Your task to perform on an android device: Open settings on Google Maps Image 0: 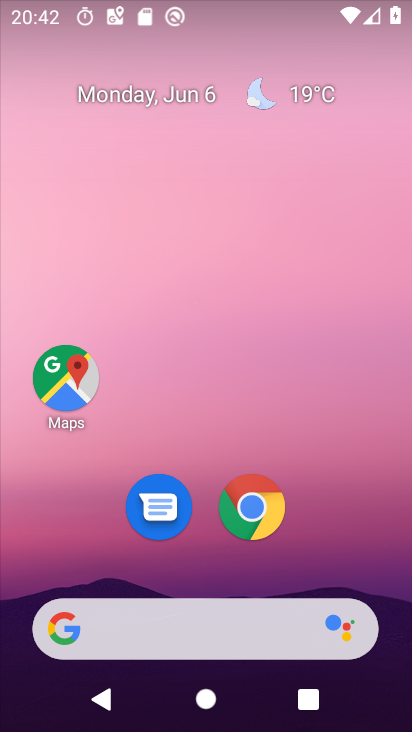
Step 0: press home button
Your task to perform on an android device: Open settings on Google Maps Image 1: 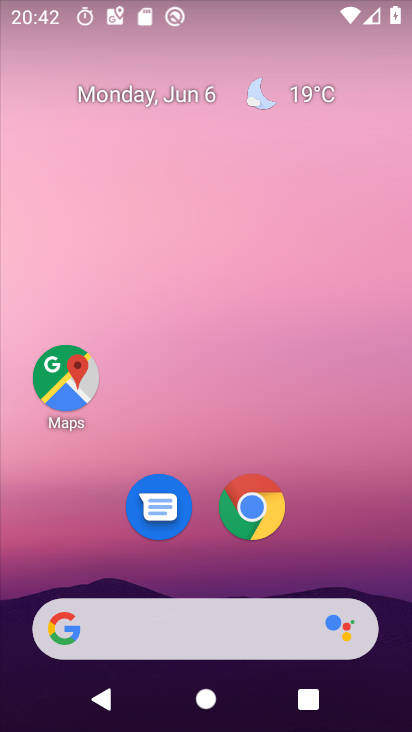
Step 1: click (80, 392)
Your task to perform on an android device: Open settings on Google Maps Image 2: 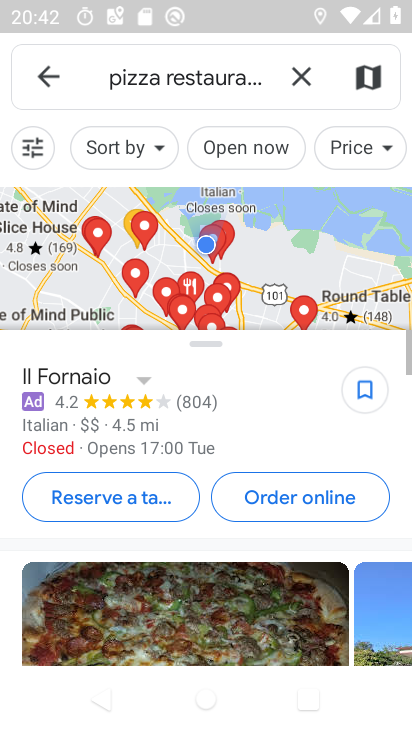
Step 2: click (31, 77)
Your task to perform on an android device: Open settings on Google Maps Image 3: 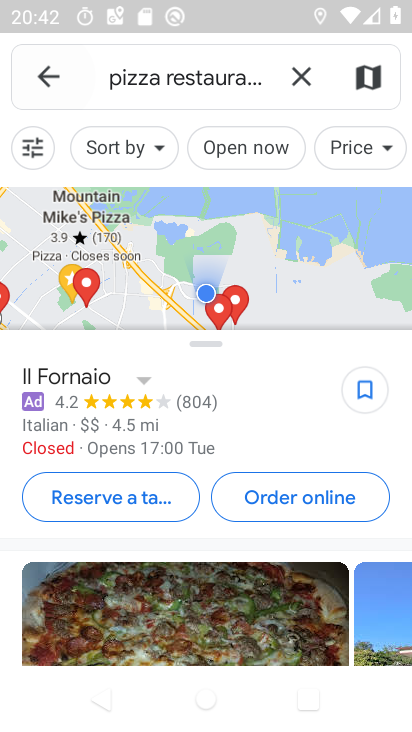
Step 3: click (31, 77)
Your task to perform on an android device: Open settings on Google Maps Image 4: 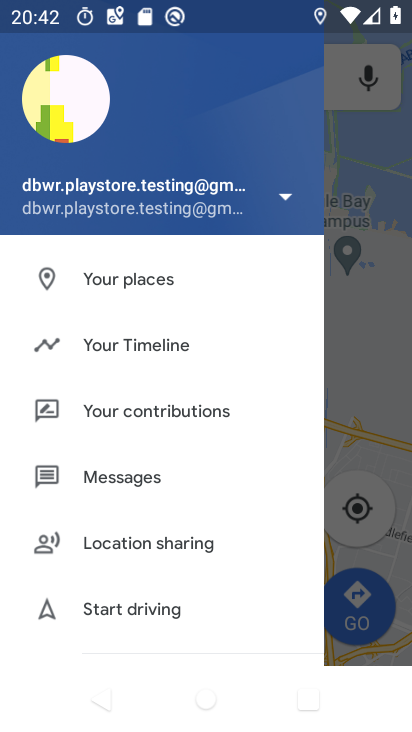
Step 4: drag from (203, 538) to (159, 76)
Your task to perform on an android device: Open settings on Google Maps Image 5: 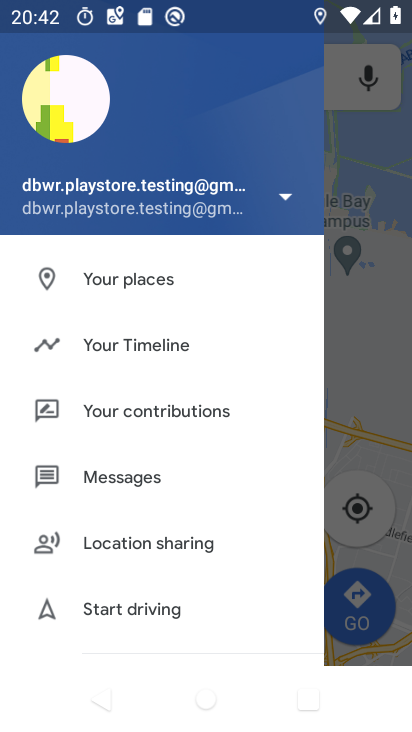
Step 5: drag from (110, 631) to (256, 73)
Your task to perform on an android device: Open settings on Google Maps Image 6: 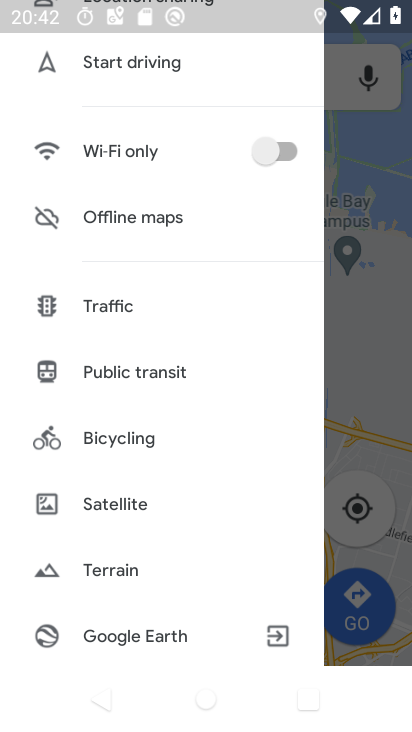
Step 6: drag from (103, 607) to (230, 112)
Your task to perform on an android device: Open settings on Google Maps Image 7: 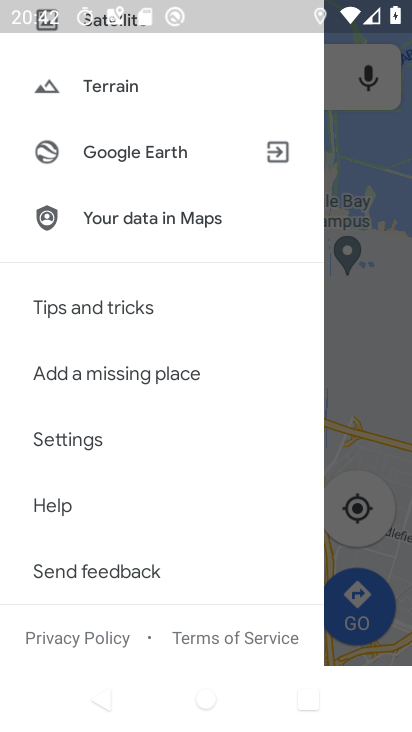
Step 7: click (75, 444)
Your task to perform on an android device: Open settings on Google Maps Image 8: 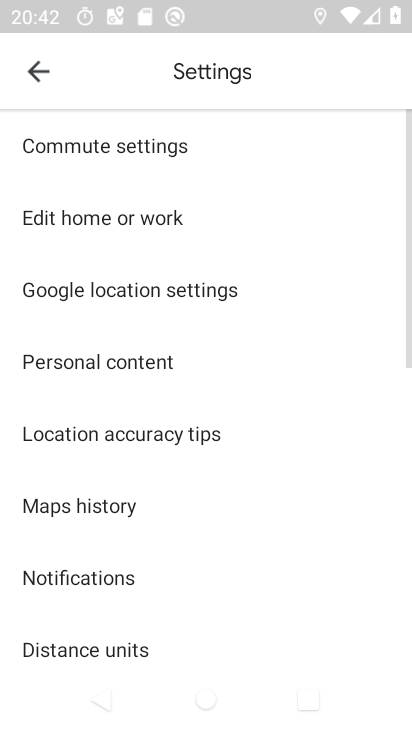
Step 8: task complete